Your task to perform on an android device: toggle show notifications on the lock screen Image 0: 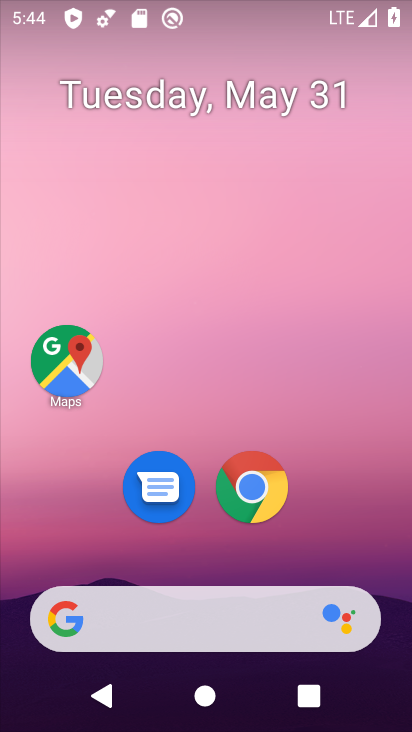
Step 0: drag from (322, 490) to (266, 49)
Your task to perform on an android device: toggle show notifications on the lock screen Image 1: 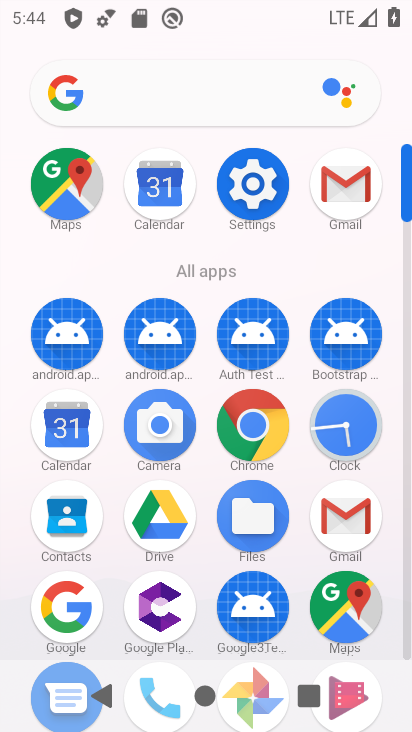
Step 1: click (251, 189)
Your task to perform on an android device: toggle show notifications on the lock screen Image 2: 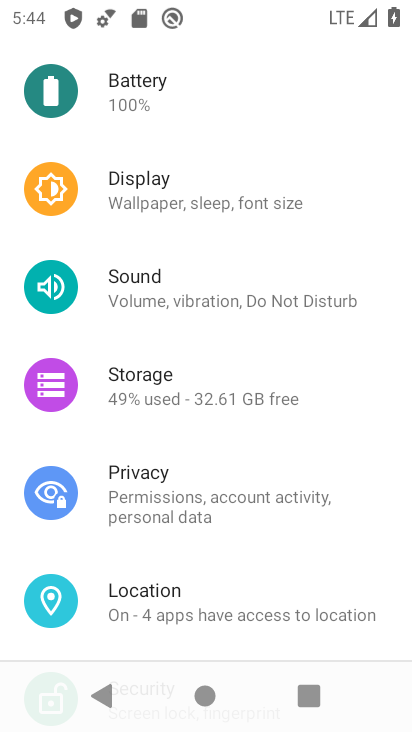
Step 2: drag from (210, 149) to (223, 525)
Your task to perform on an android device: toggle show notifications on the lock screen Image 3: 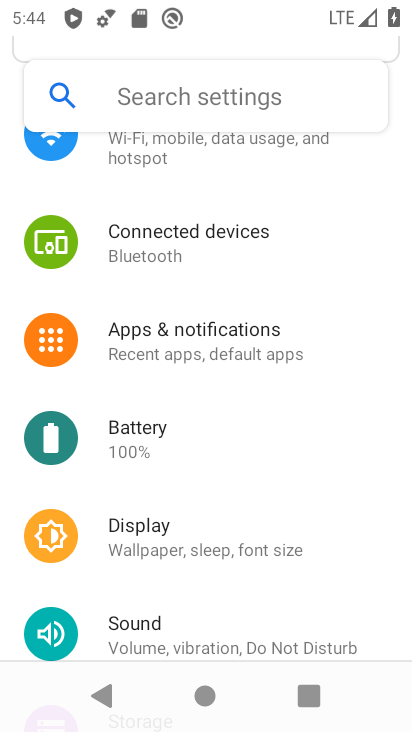
Step 3: click (202, 336)
Your task to perform on an android device: toggle show notifications on the lock screen Image 4: 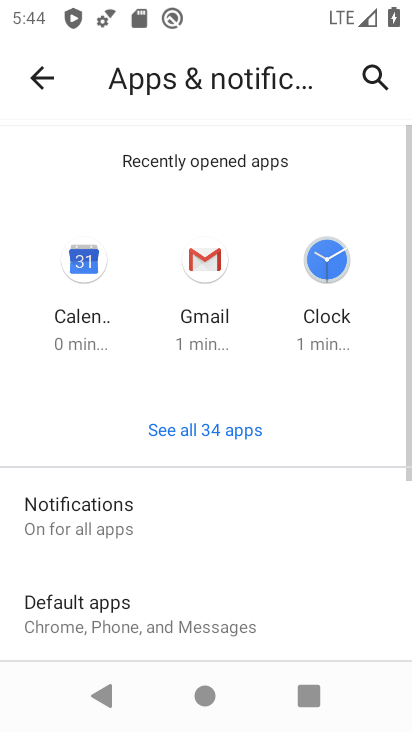
Step 4: click (96, 507)
Your task to perform on an android device: toggle show notifications on the lock screen Image 5: 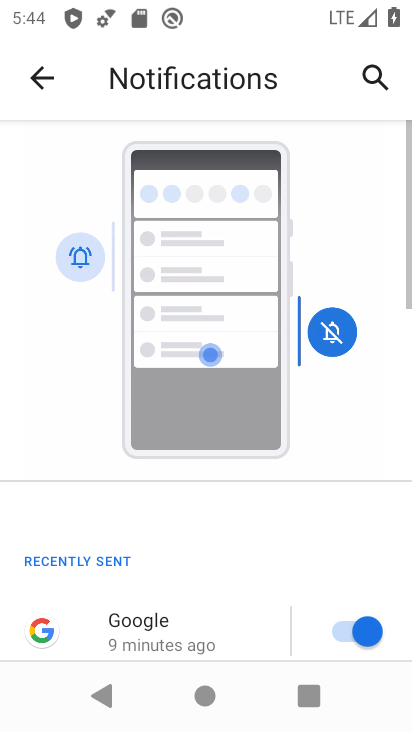
Step 5: drag from (259, 557) to (248, 222)
Your task to perform on an android device: toggle show notifications on the lock screen Image 6: 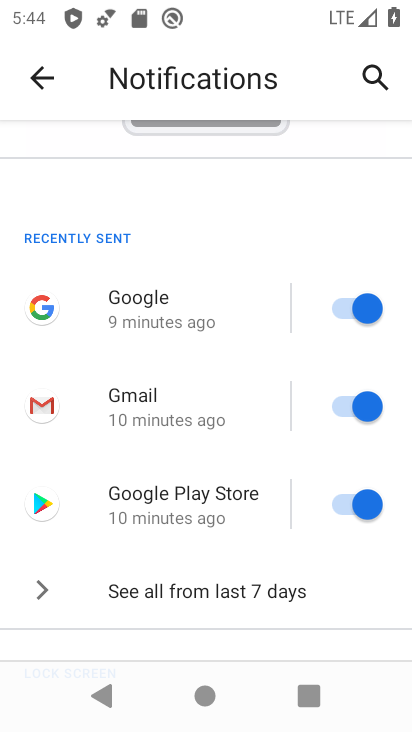
Step 6: drag from (256, 543) to (236, 194)
Your task to perform on an android device: toggle show notifications on the lock screen Image 7: 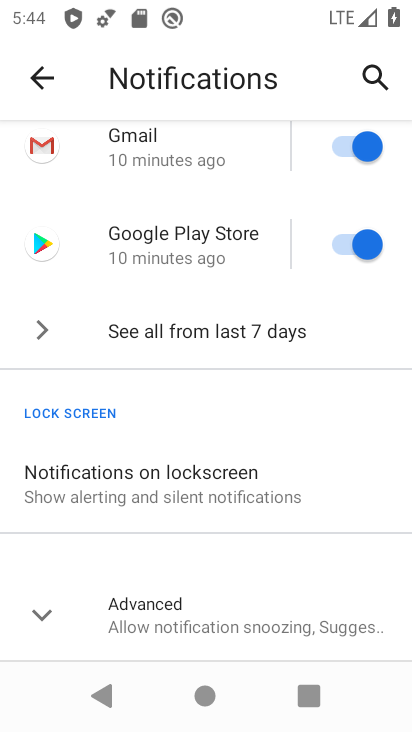
Step 7: click (191, 470)
Your task to perform on an android device: toggle show notifications on the lock screen Image 8: 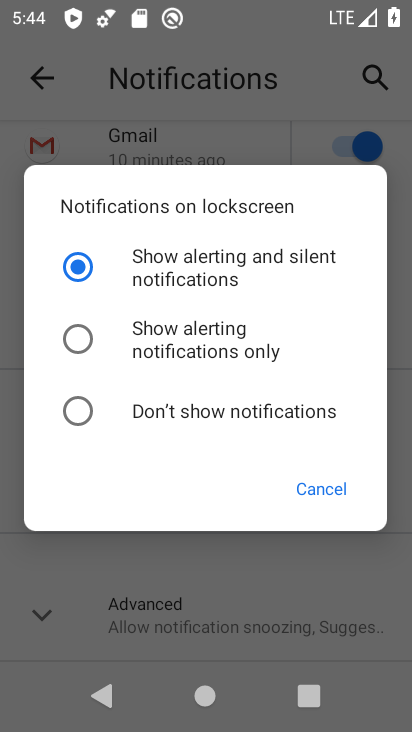
Step 8: click (77, 408)
Your task to perform on an android device: toggle show notifications on the lock screen Image 9: 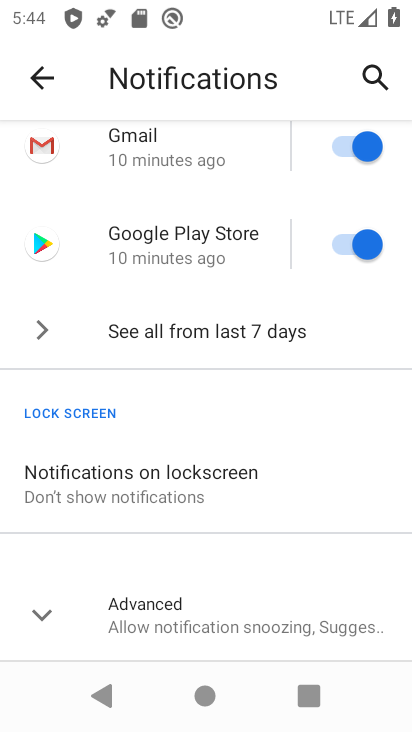
Step 9: task complete